Your task to perform on an android device: turn on translation in the chrome app Image 0: 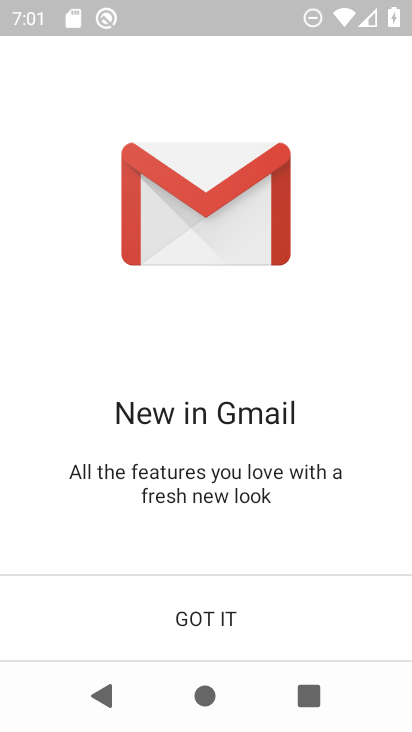
Step 0: press home button
Your task to perform on an android device: turn on translation in the chrome app Image 1: 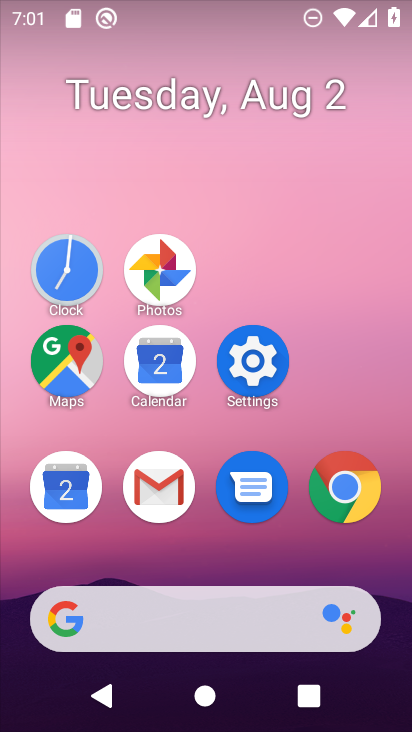
Step 1: click (343, 487)
Your task to perform on an android device: turn on translation in the chrome app Image 2: 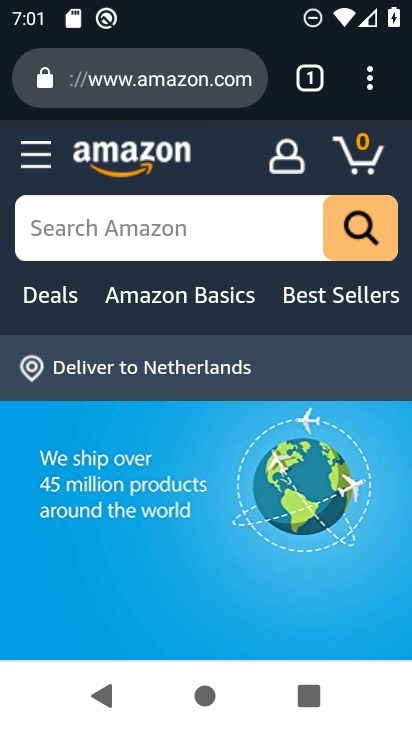
Step 2: click (376, 79)
Your task to perform on an android device: turn on translation in the chrome app Image 3: 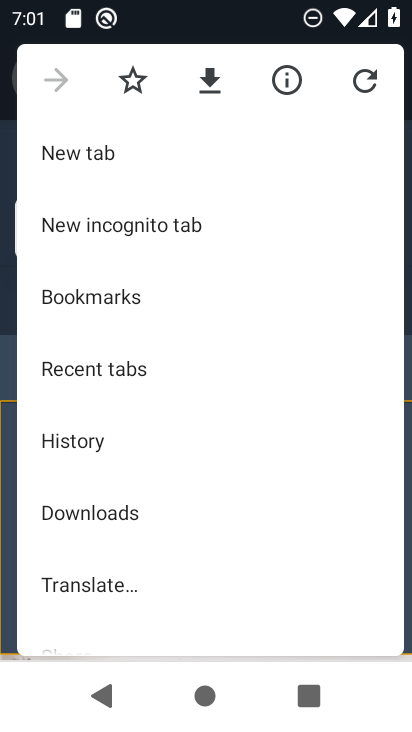
Step 3: drag from (239, 554) to (222, 86)
Your task to perform on an android device: turn on translation in the chrome app Image 4: 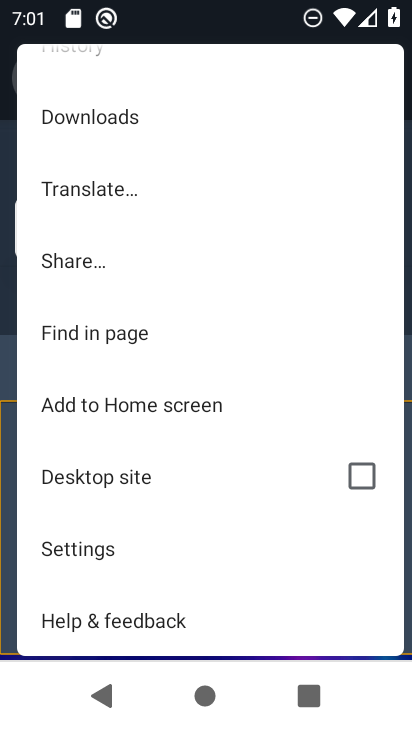
Step 4: click (82, 545)
Your task to perform on an android device: turn on translation in the chrome app Image 5: 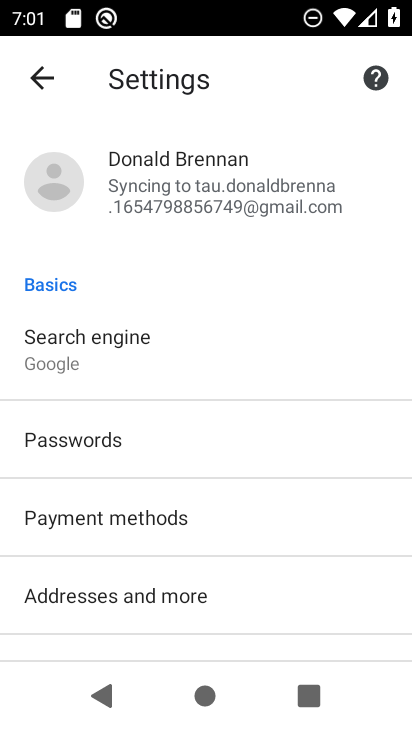
Step 5: drag from (239, 585) to (214, 212)
Your task to perform on an android device: turn on translation in the chrome app Image 6: 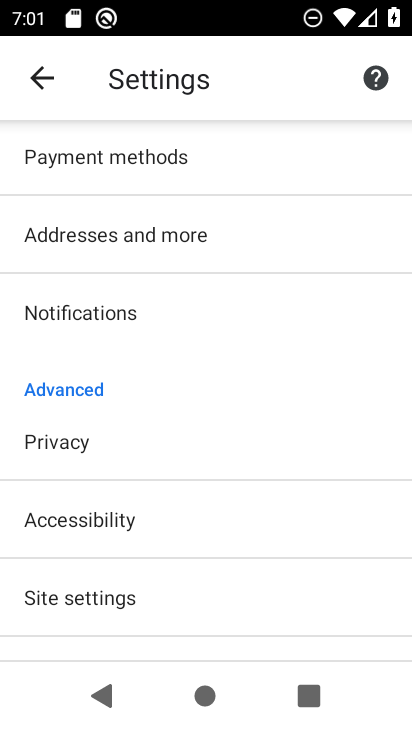
Step 6: drag from (202, 561) to (159, 146)
Your task to perform on an android device: turn on translation in the chrome app Image 7: 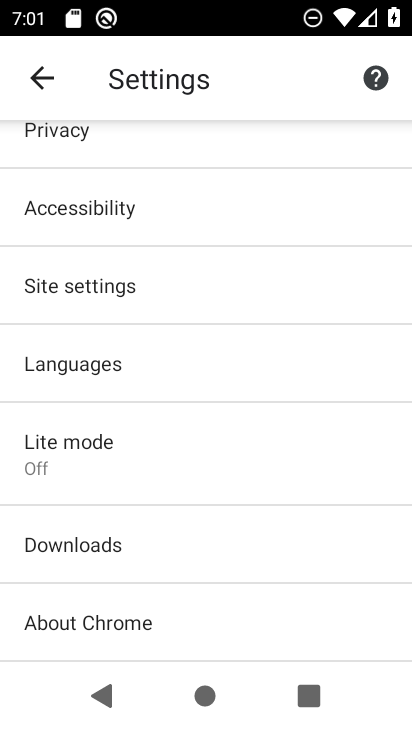
Step 7: click (82, 356)
Your task to perform on an android device: turn on translation in the chrome app Image 8: 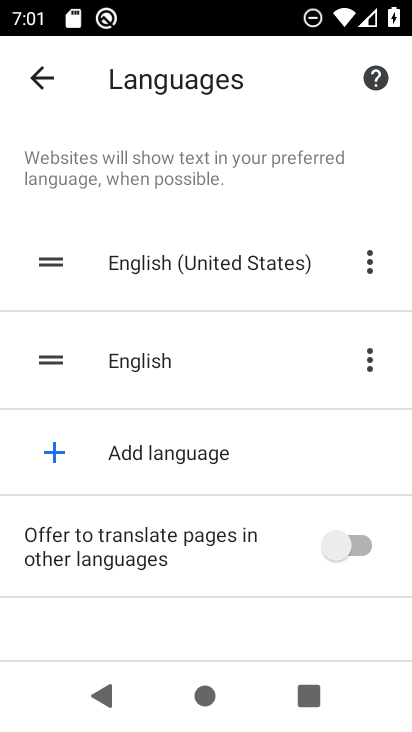
Step 8: click (346, 543)
Your task to perform on an android device: turn on translation in the chrome app Image 9: 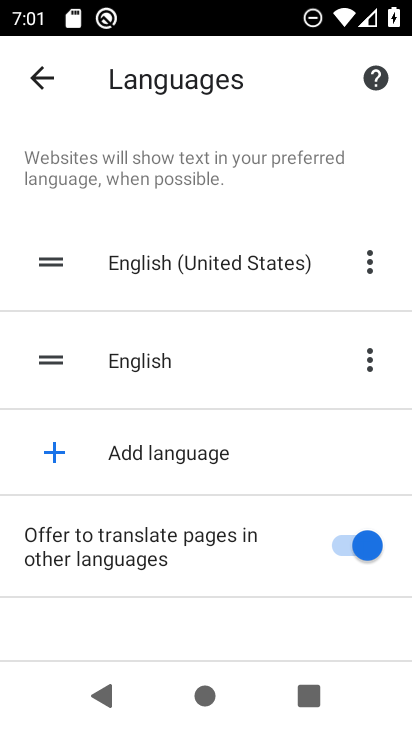
Step 9: task complete